Your task to perform on an android device: What's the latest video from Gameranx? Image 0: 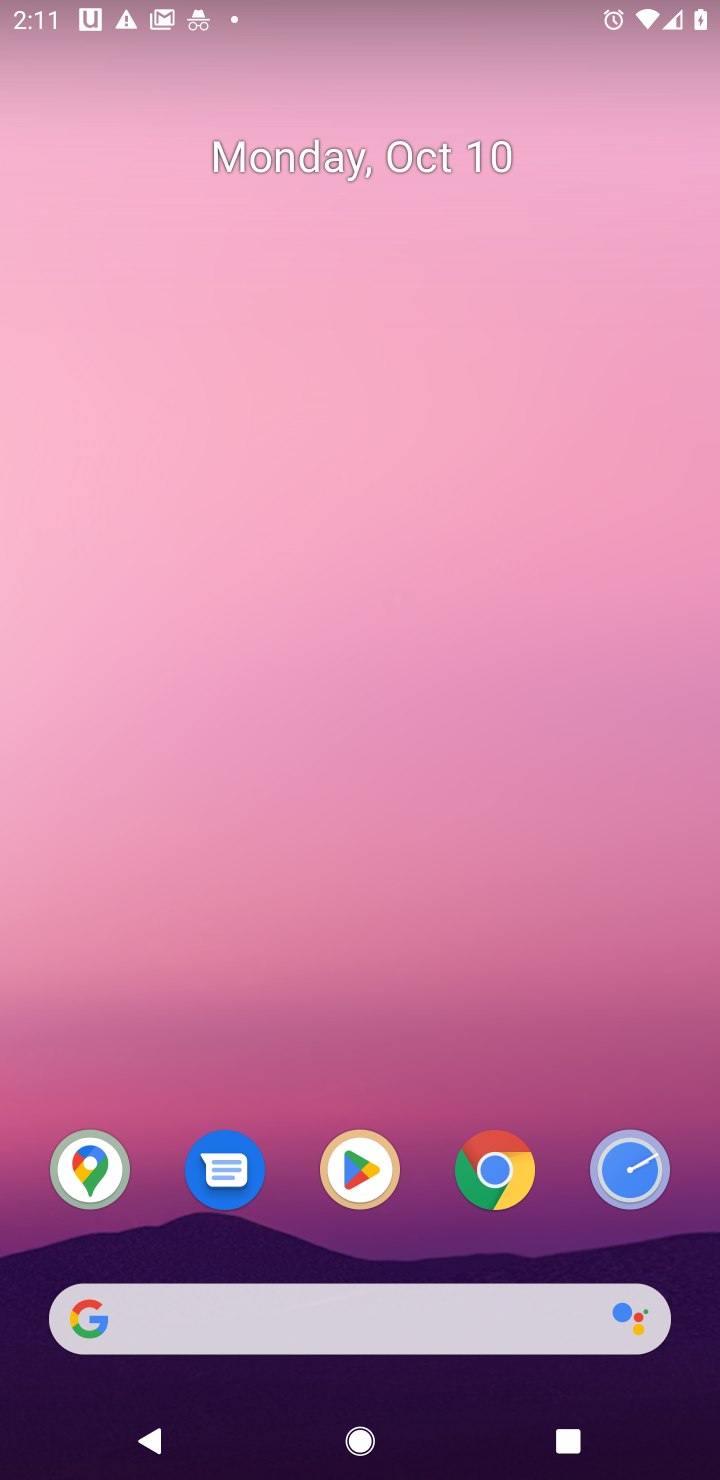
Step 0: click (514, 1178)
Your task to perform on an android device: What's the latest video from Gameranx? Image 1: 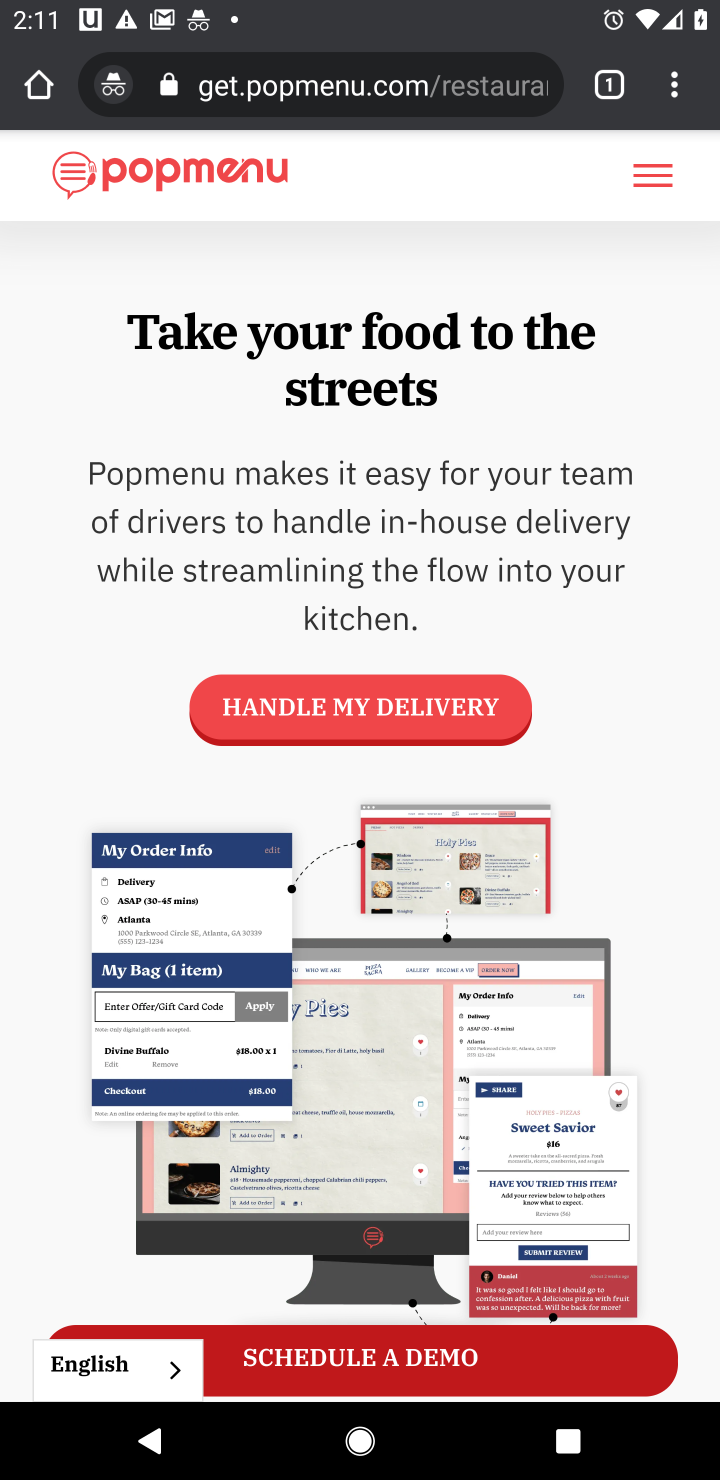
Step 1: click (396, 80)
Your task to perform on an android device: What's the latest video from Gameranx? Image 2: 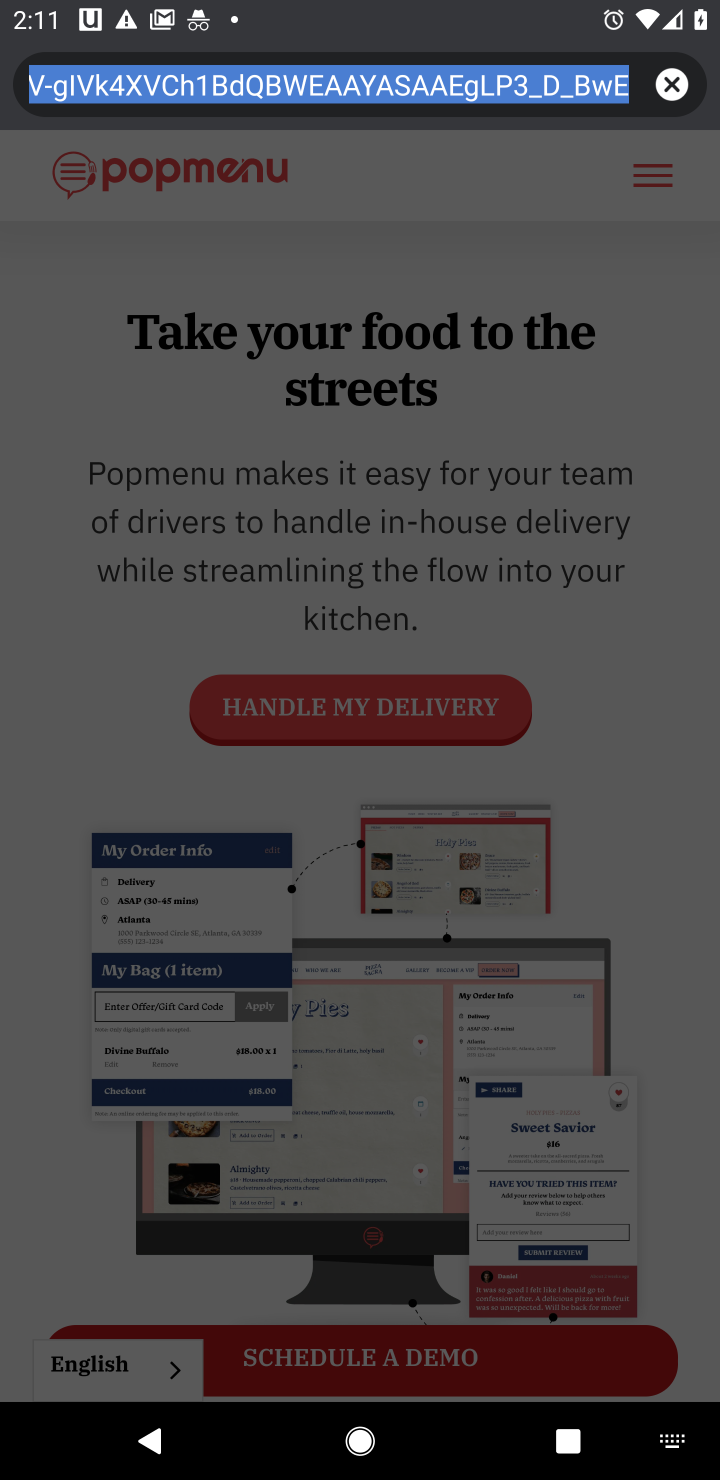
Step 2: click (673, 83)
Your task to perform on an android device: What's the latest video from Gameranx? Image 3: 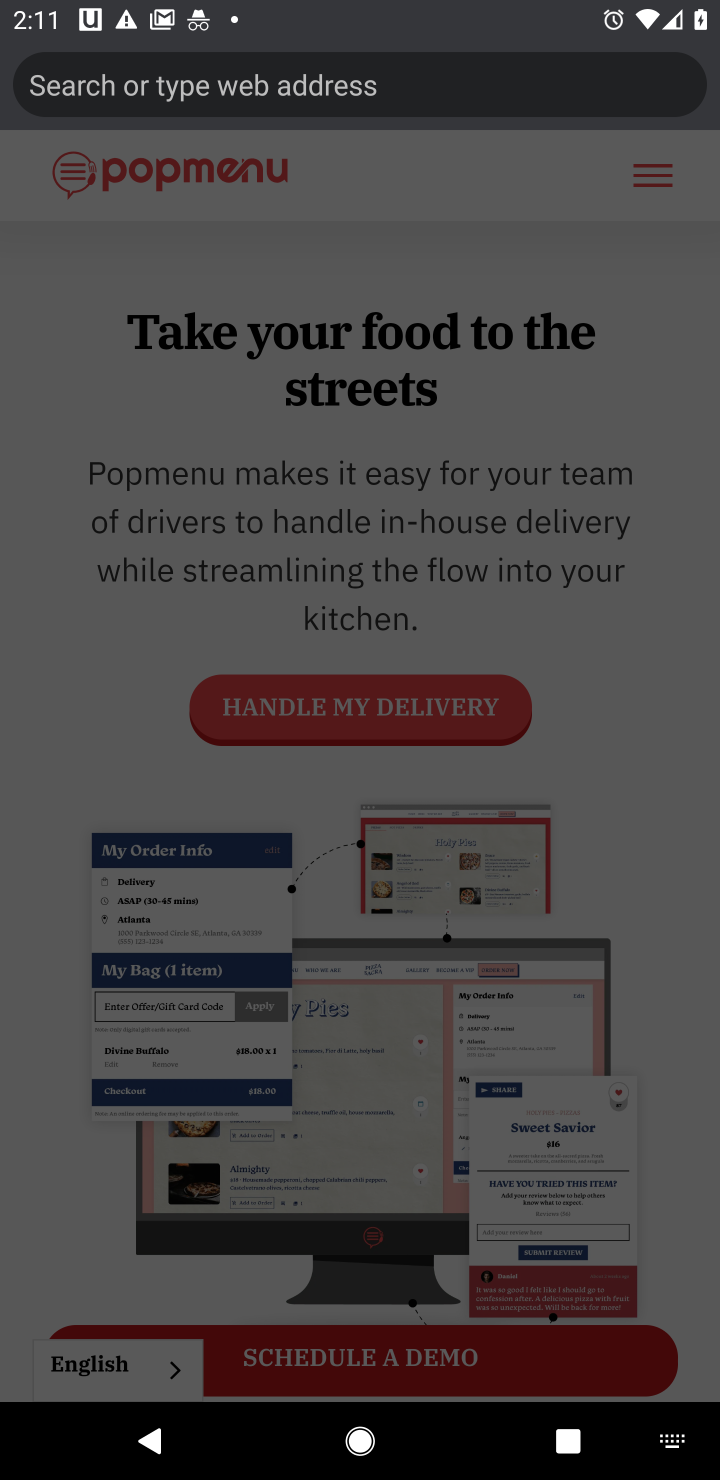
Step 3: type "latest video from gameranx"
Your task to perform on an android device: What's the latest video from Gameranx? Image 4: 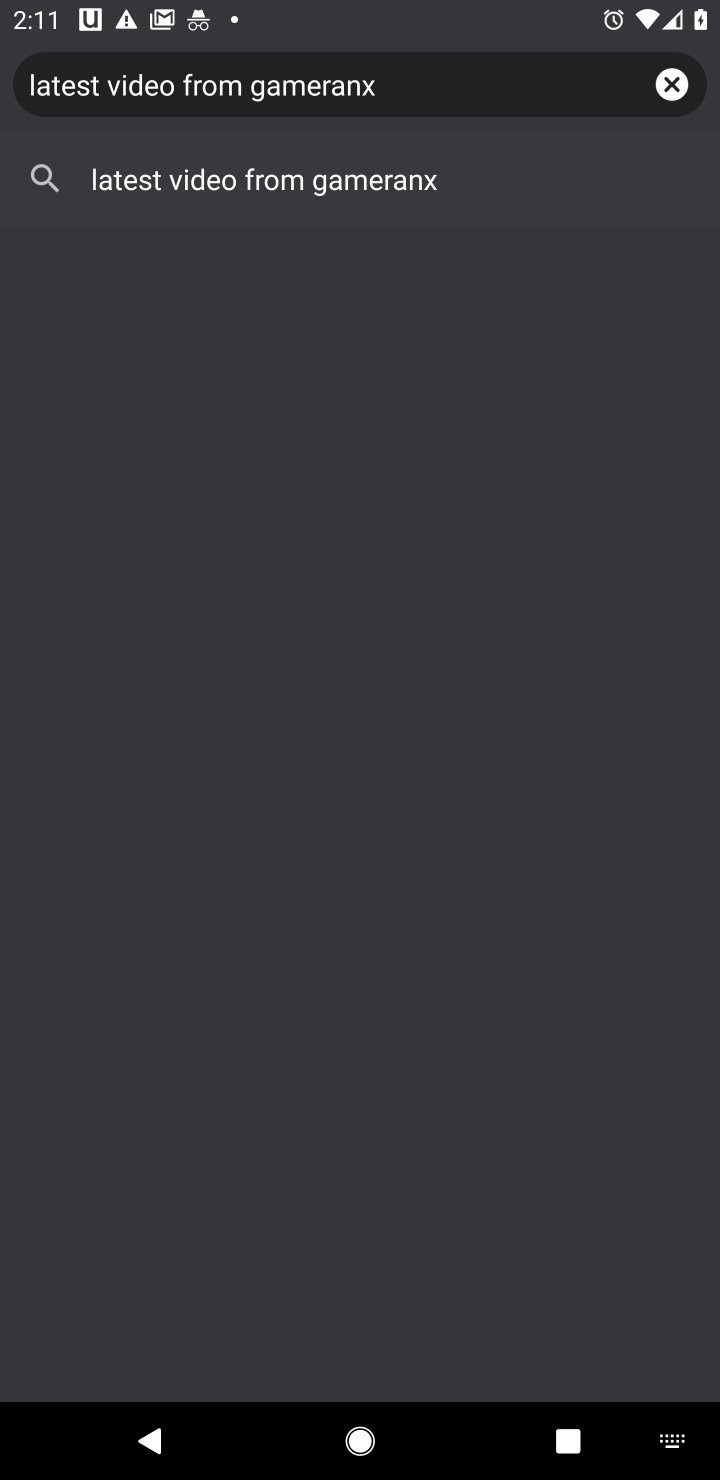
Step 4: click (180, 193)
Your task to perform on an android device: What's the latest video from Gameranx? Image 5: 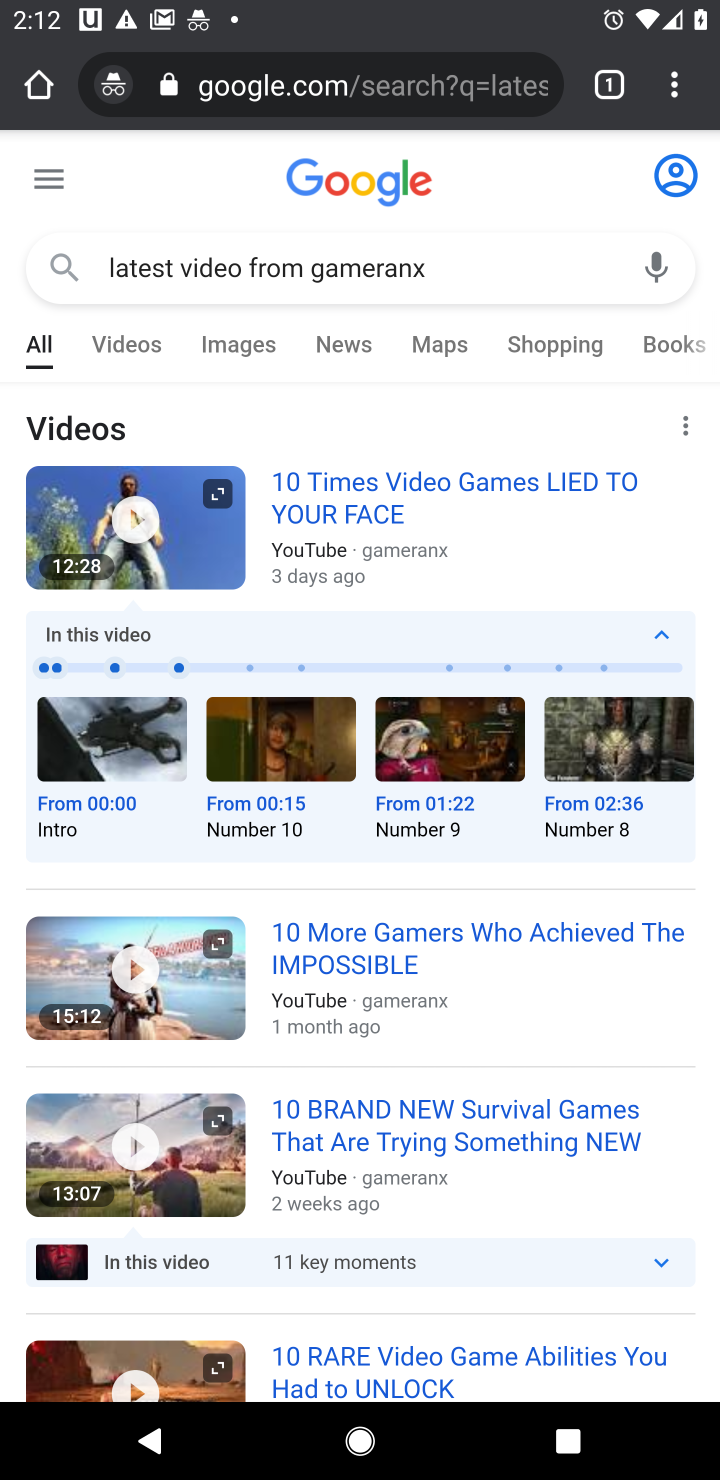
Step 5: task complete